Your task to perform on an android device: open device folders in google photos Image 0: 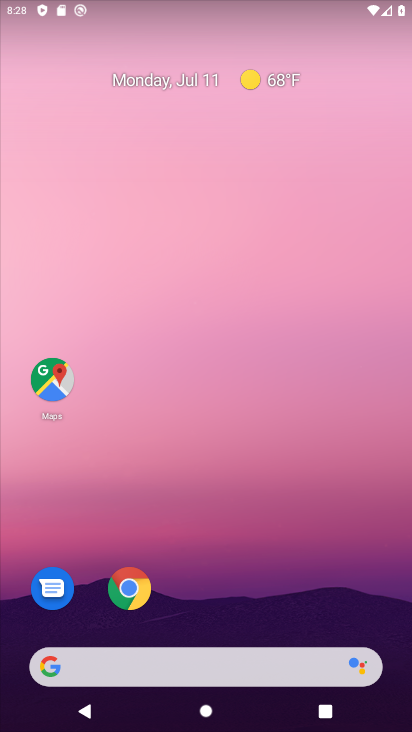
Step 0: drag from (242, 649) to (207, 153)
Your task to perform on an android device: open device folders in google photos Image 1: 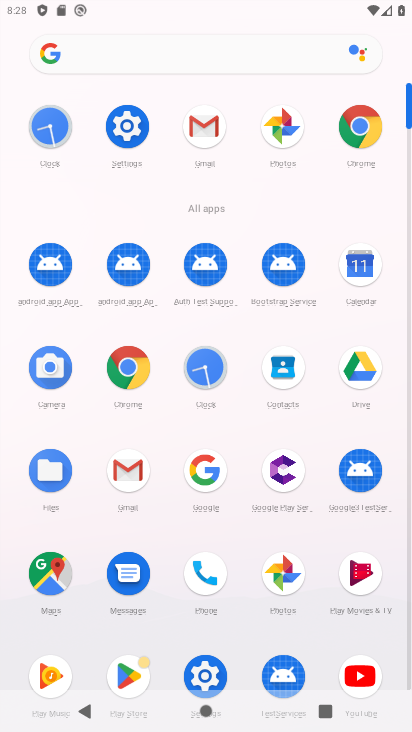
Step 1: click (271, 135)
Your task to perform on an android device: open device folders in google photos Image 2: 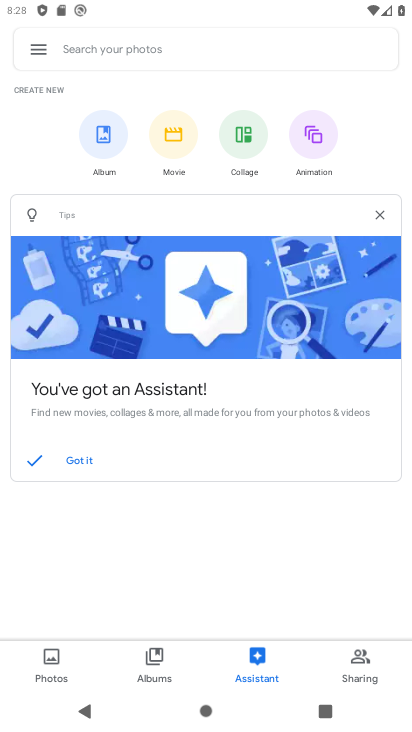
Step 2: click (36, 56)
Your task to perform on an android device: open device folders in google photos Image 3: 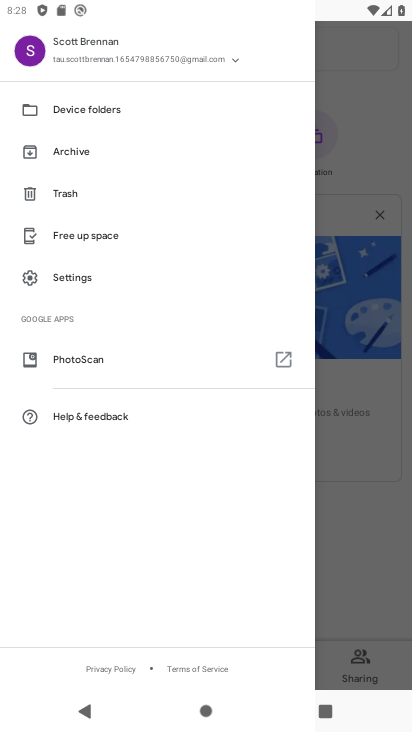
Step 3: click (62, 103)
Your task to perform on an android device: open device folders in google photos Image 4: 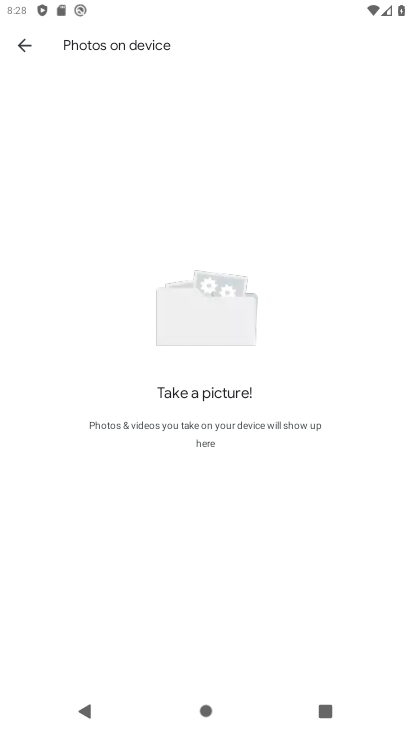
Step 4: task complete